Your task to perform on an android device: open a bookmark in the chrome app Image 0: 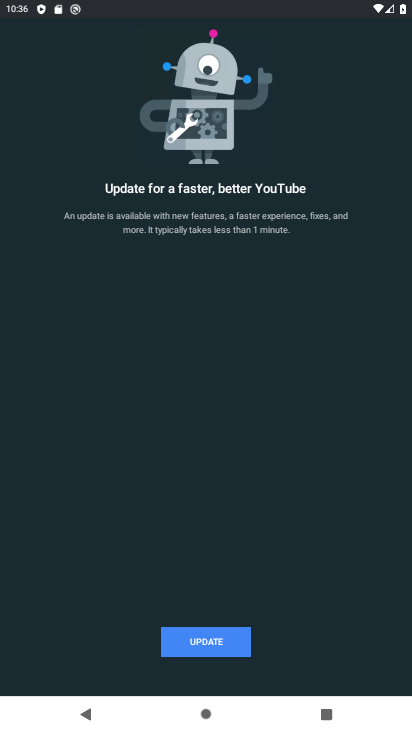
Step 0: press home button
Your task to perform on an android device: open a bookmark in the chrome app Image 1: 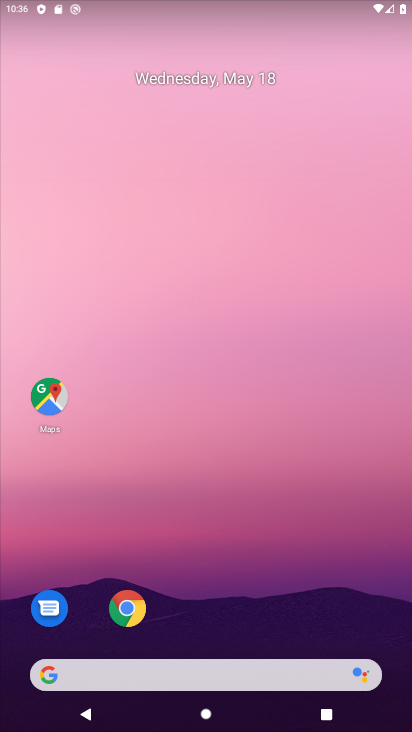
Step 1: click (128, 611)
Your task to perform on an android device: open a bookmark in the chrome app Image 2: 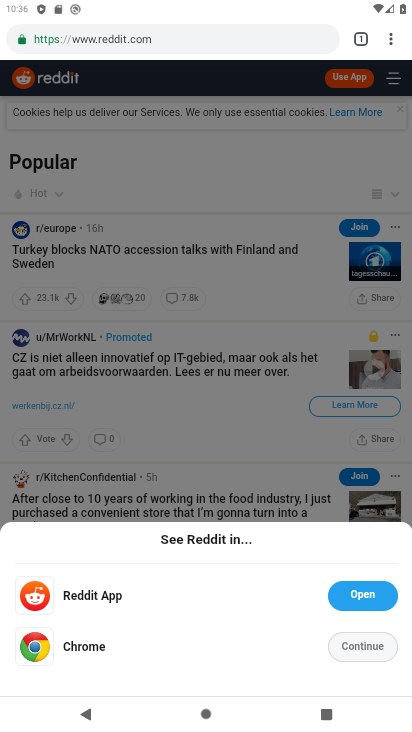
Step 2: click (134, 620)
Your task to perform on an android device: open a bookmark in the chrome app Image 3: 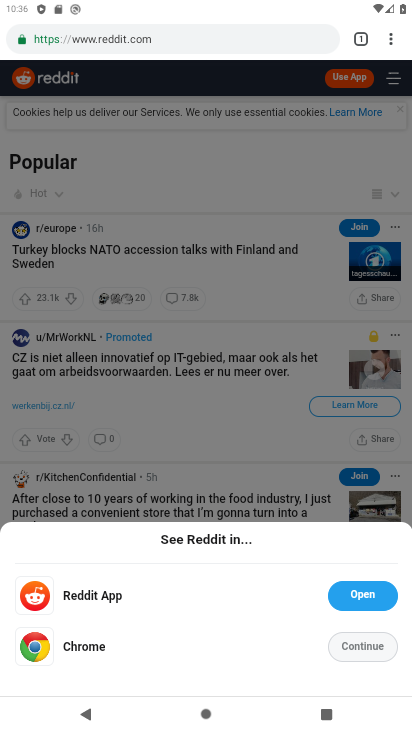
Step 3: task complete